Your task to perform on an android device: Go to network settings Image 0: 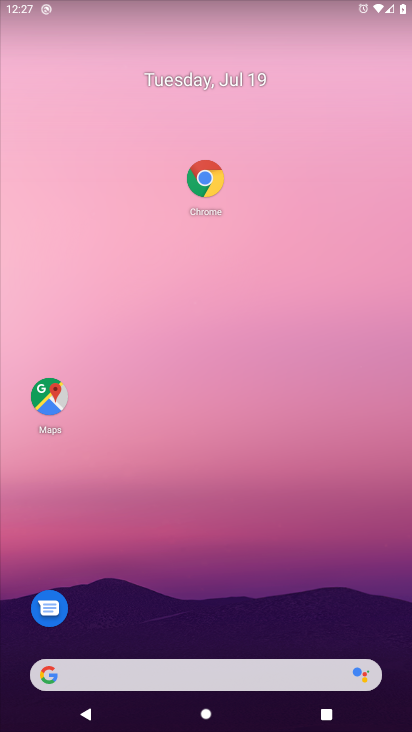
Step 0: drag from (33, 703) to (312, 40)
Your task to perform on an android device: Go to network settings Image 1: 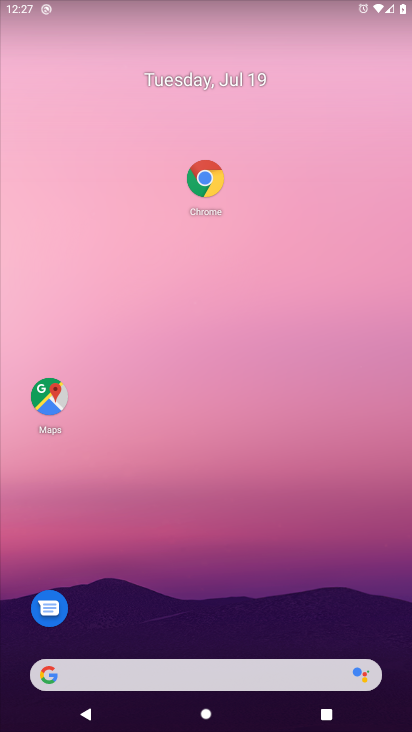
Step 1: drag from (185, 194) to (191, 154)
Your task to perform on an android device: Go to network settings Image 2: 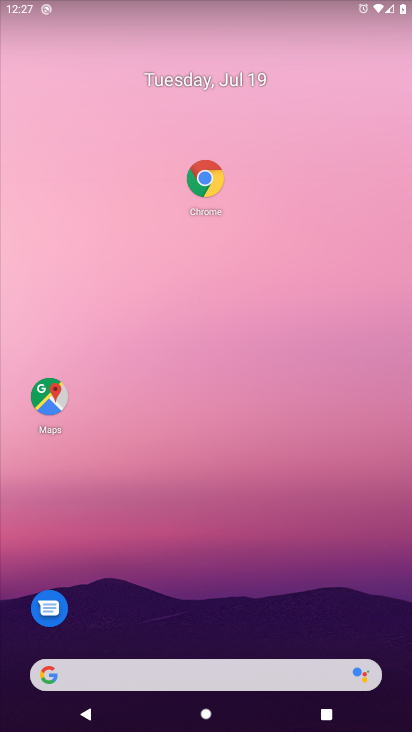
Step 2: drag from (181, 550) to (303, 86)
Your task to perform on an android device: Go to network settings Image 3: 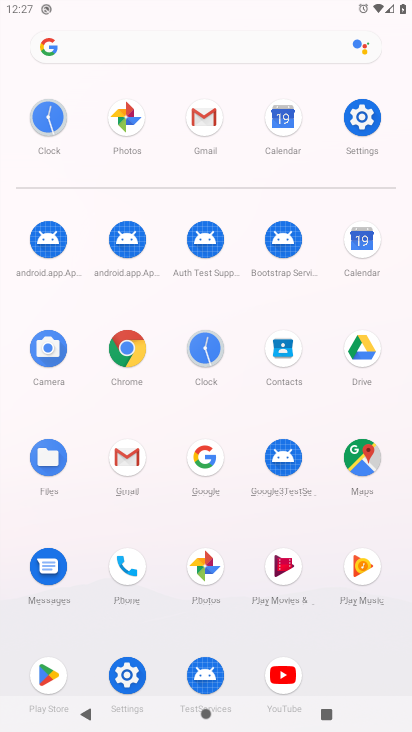
Step 3: click (130, 677)
Your task to perform on an android device: Go to network settings Image 4: 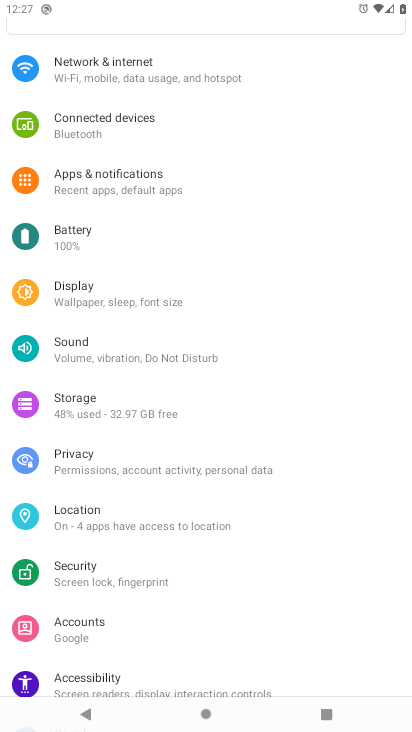
Step 4: click (154, 69)
Your task to perform on an android device: Go to network settings Image 5: 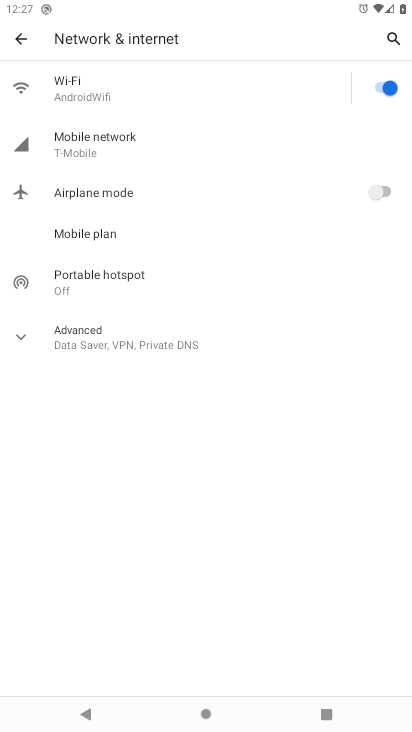
Step 5: task complete